Your task to perform on an android device: uninstall "Pluto TV - Live TV and Movies" Image 0: 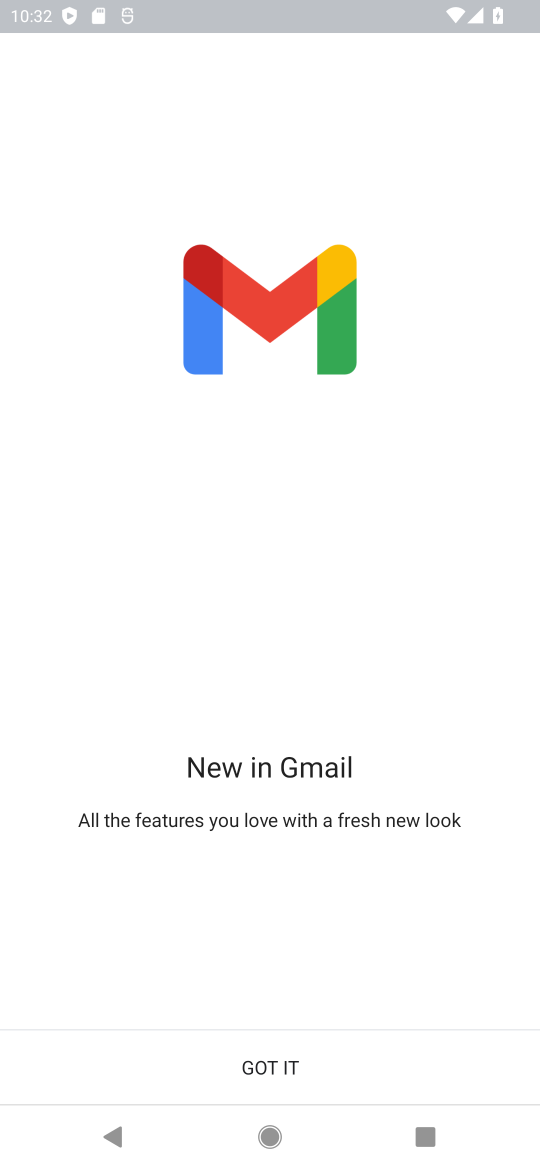
Step 0: press back button
Your task to perform on an android device: uninstall "Pluto TV - Live TV and Movies" Image 1: 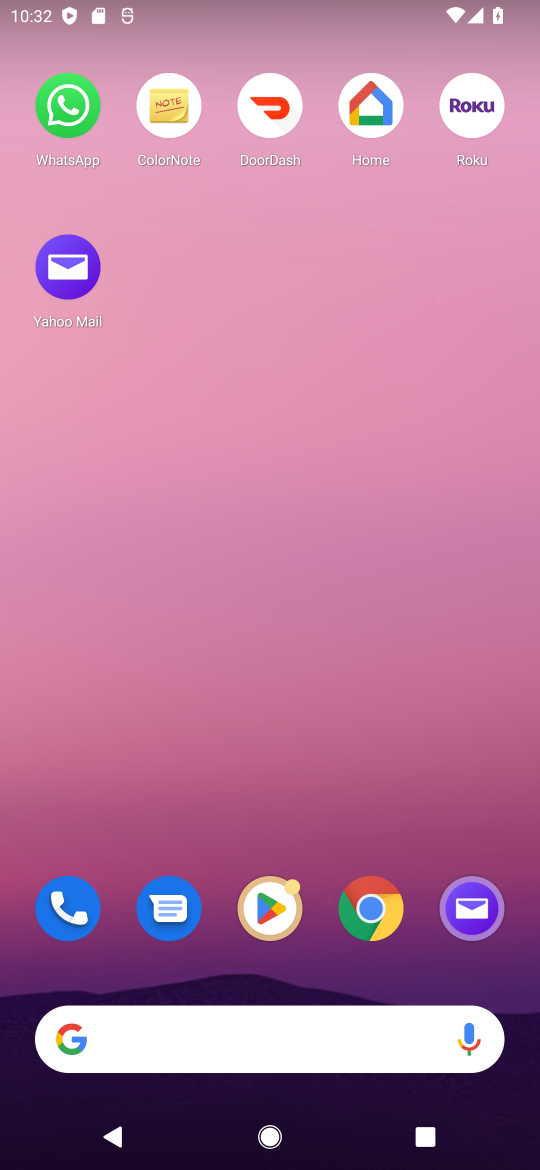
Step 1: click (274, 905)
Your task to perform on an android device: uninstall "Pluto TV - Live TV and Movies" Image 2: 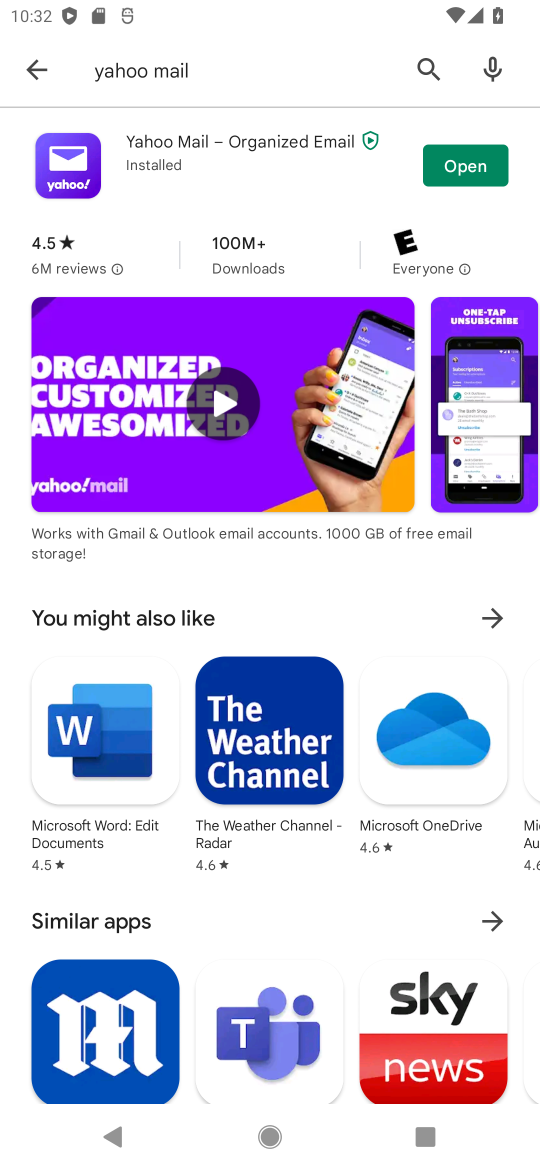
Step 2: click (44, 82)
Your task to perform on an android device: uninstall "Pluto TV - Live TV and Movies" Image 3: 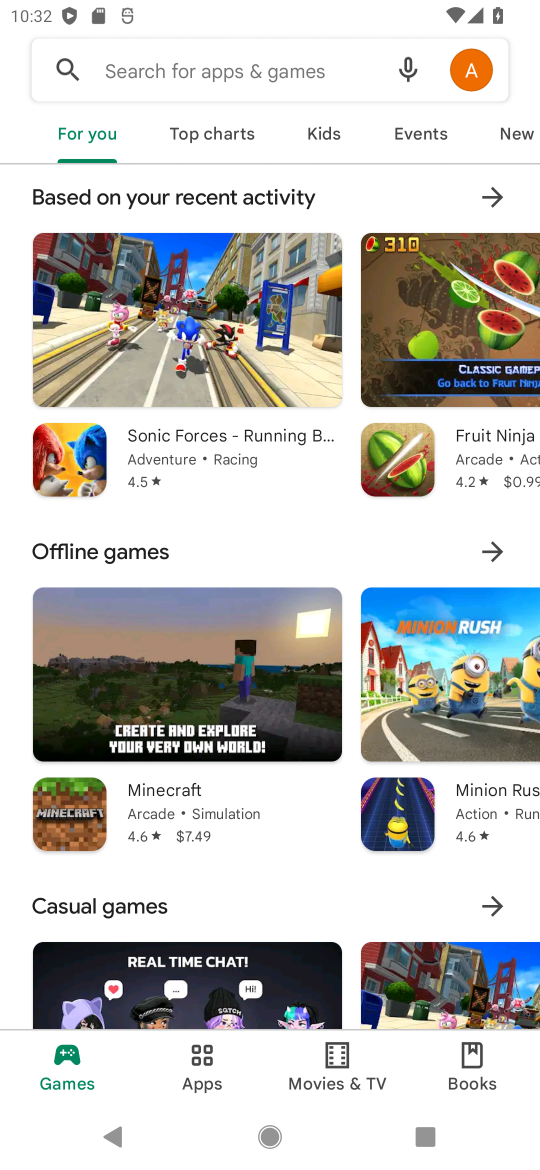
Step 3: click (134, 79)
Your task to perform on an android device: uninstall "Pluto TV - Live TV and Movies" Image 4: 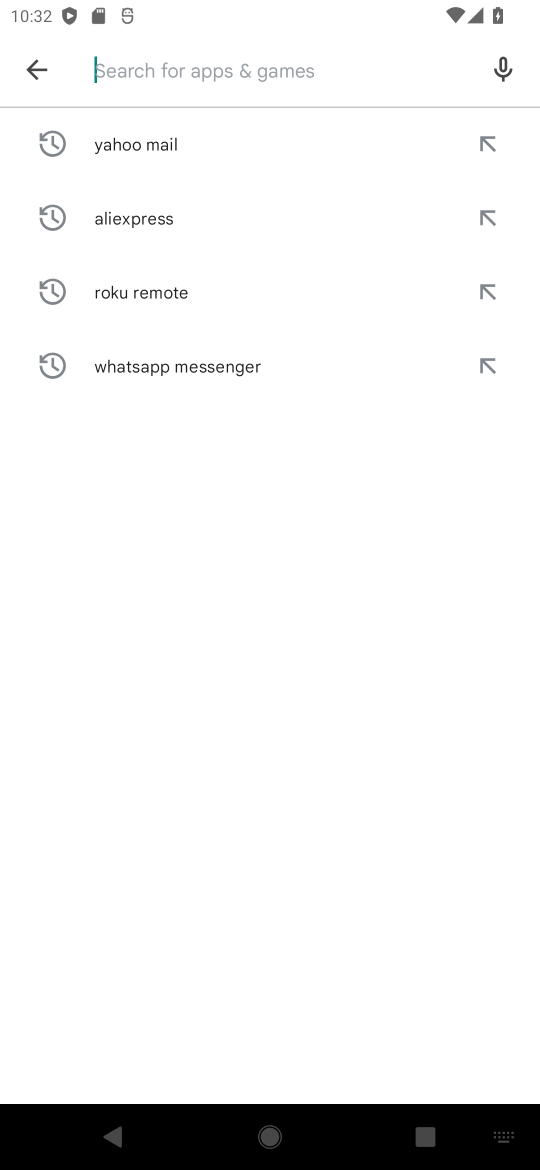
Step 4: type "Pluto TV - Live TV and Movies"
Your task to perform on an android device: uninstall "Pluto TV - Live TV and Movies" Image 5: 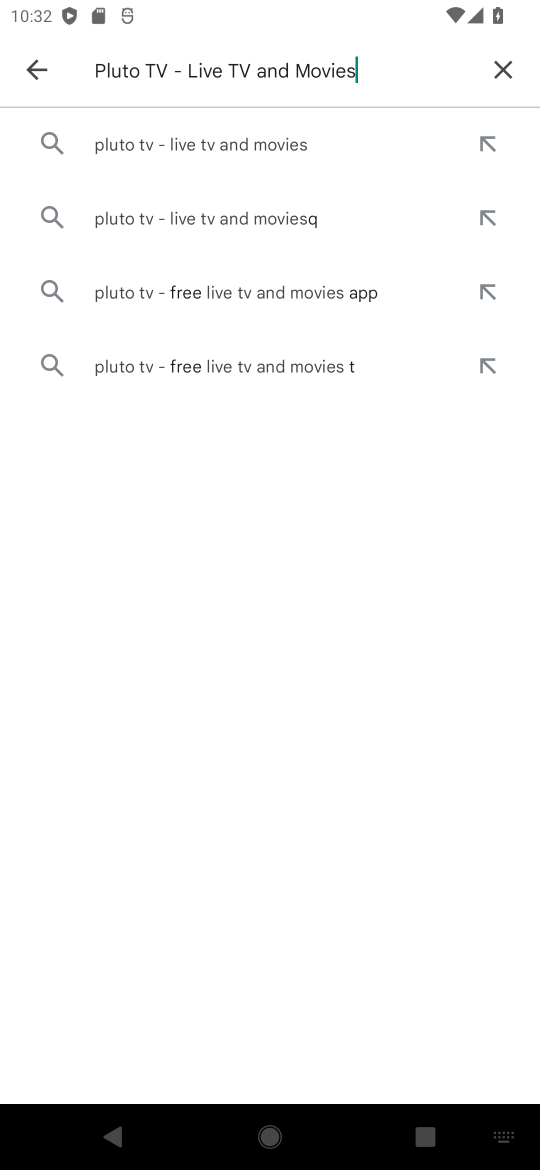
Step 5: click (197, 150)
Your task to perform on an android device: uninstall "Pluto TV - Live TV and Movies" Image 6: 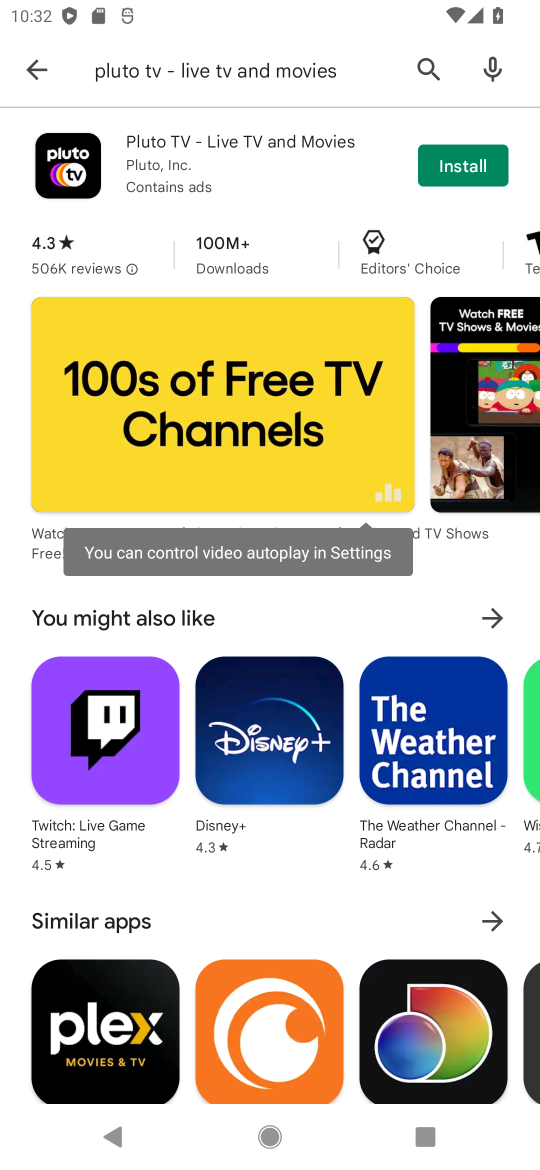
Step 6: task complete